Your task to perform on an android device: Open the Play Movies app and select the watchlist tab. Image 0: 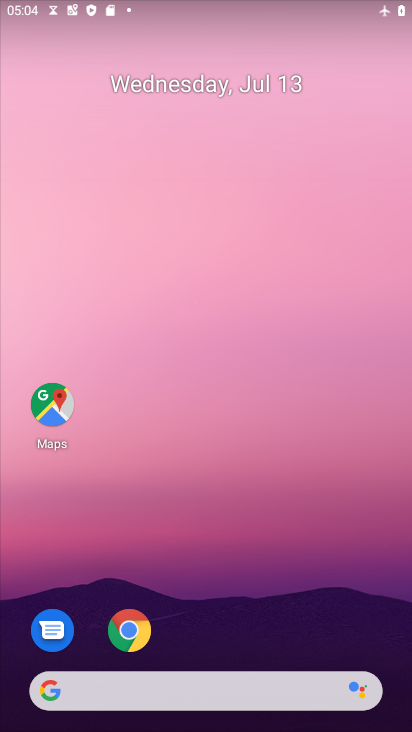
Step 0: drag from (268, 673) to (325, 228)
Your task to perform on an android device: Open the Play Movies app and select the watchlist tab. Image 1: 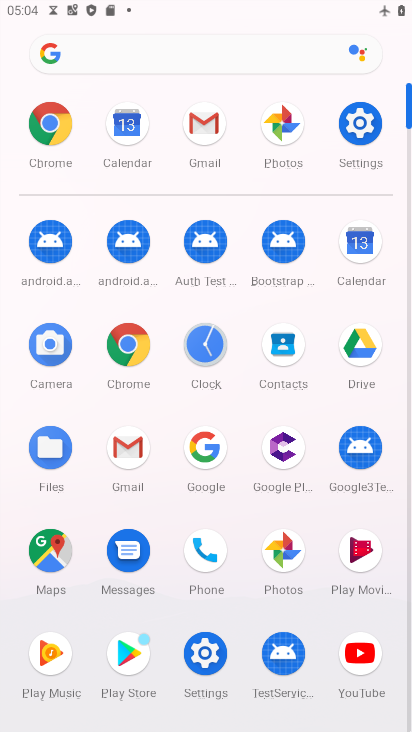
Step 1: click (355, 552)
Your task to perform on an android device: Open the Play Movies app and select the watchlist tab. Image 2: 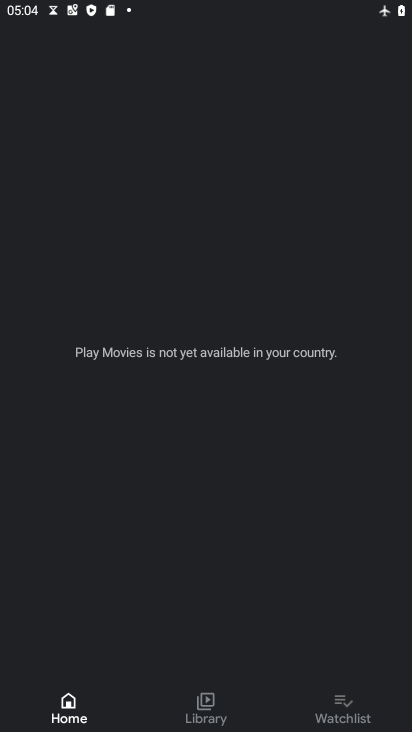
Step 2: click (356, 708)
Your task to perform on an android device: Open the Play Movies app and select the watchlist tab. Image 3: 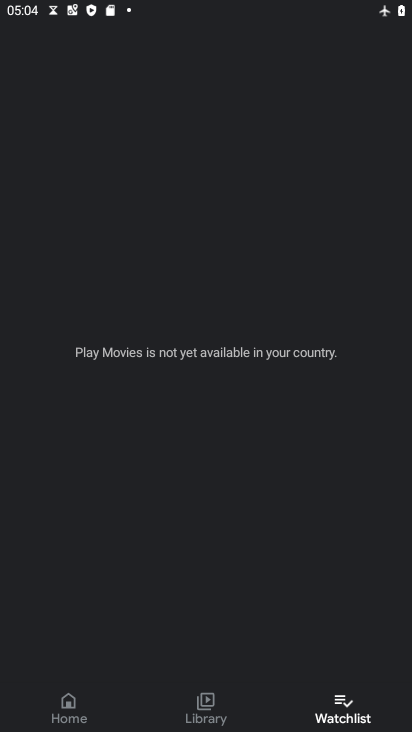
Step 3: task complete